Your task to perform on an android device: Add "rayovac triple a" to the cart on target, then select checkout. Image 0: 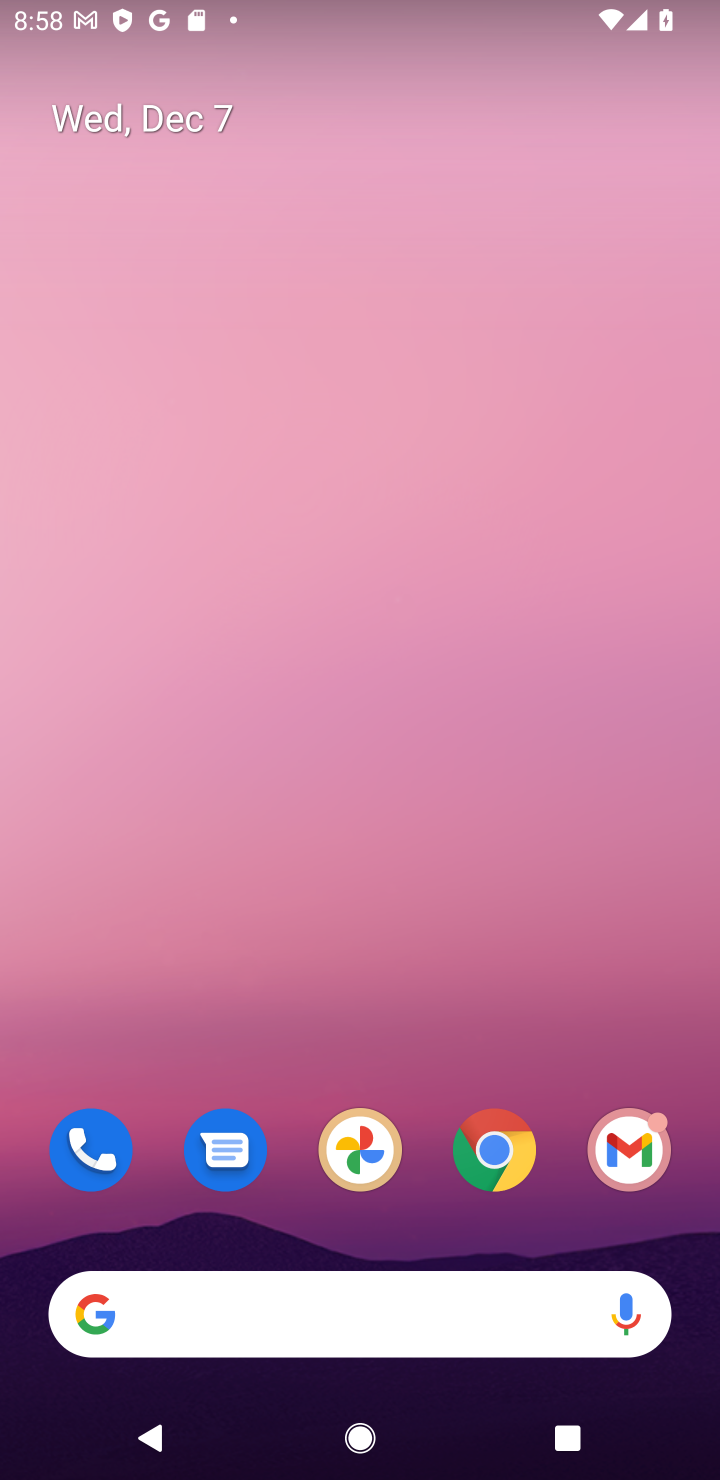
Step 0: click (492, 1152)
Your task to perform on an android device: Add "rayovac triple a" to the cart on target, then select checkout. Image 1: 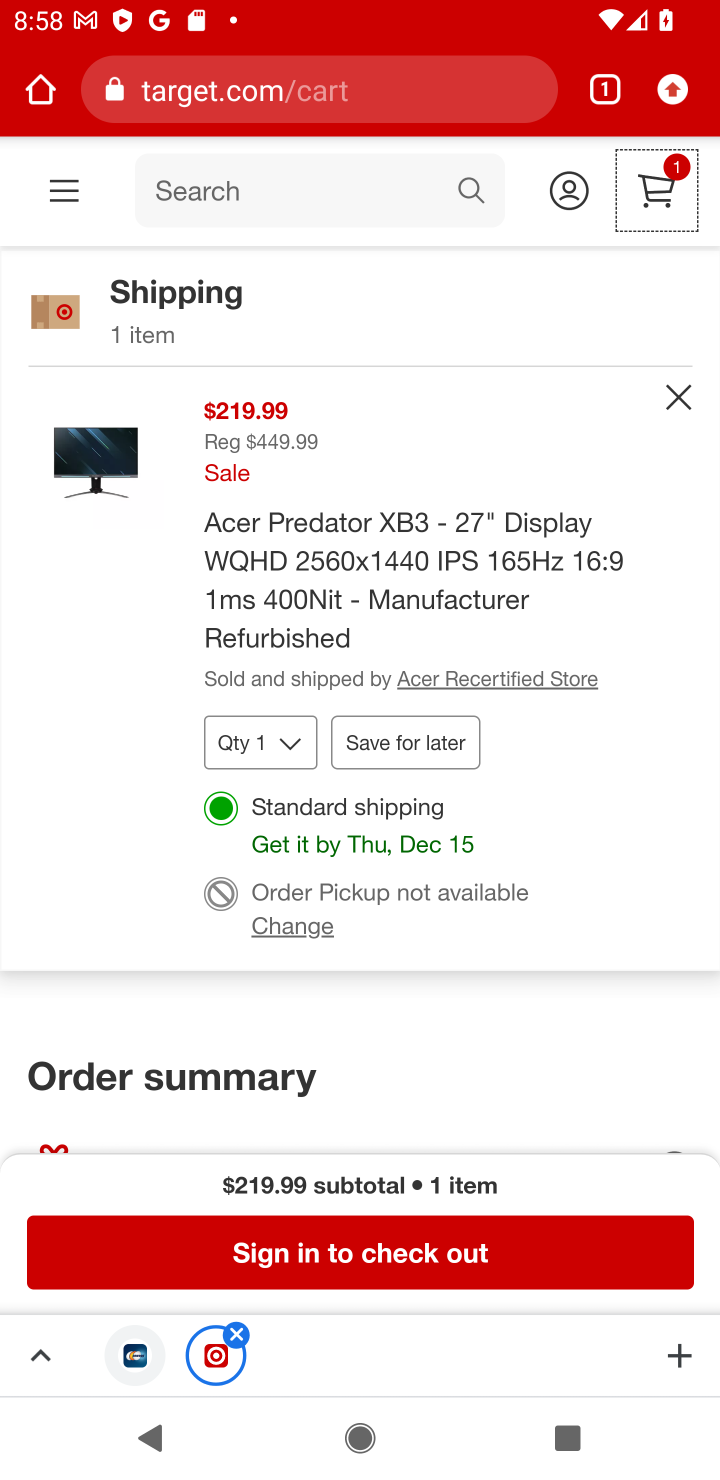
Step 1: click (236, 106)
Your task to perform on an android device: Add "rayovac triple a" to the cart on target, then select checkout. Image 2: 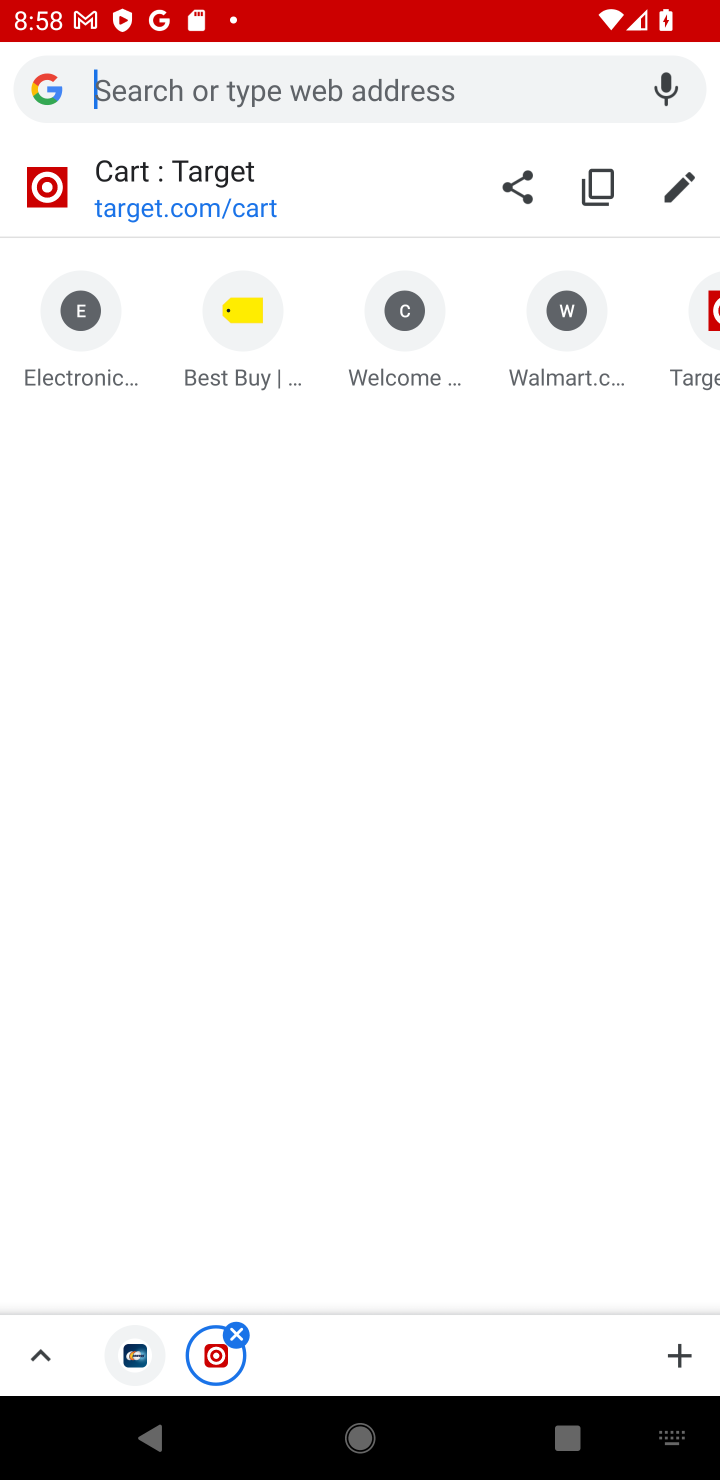
Step 2: type "target"
Your task to perform on an android device: Add "rayovac triple a" to the cart on target, then select checkout. Image 3: 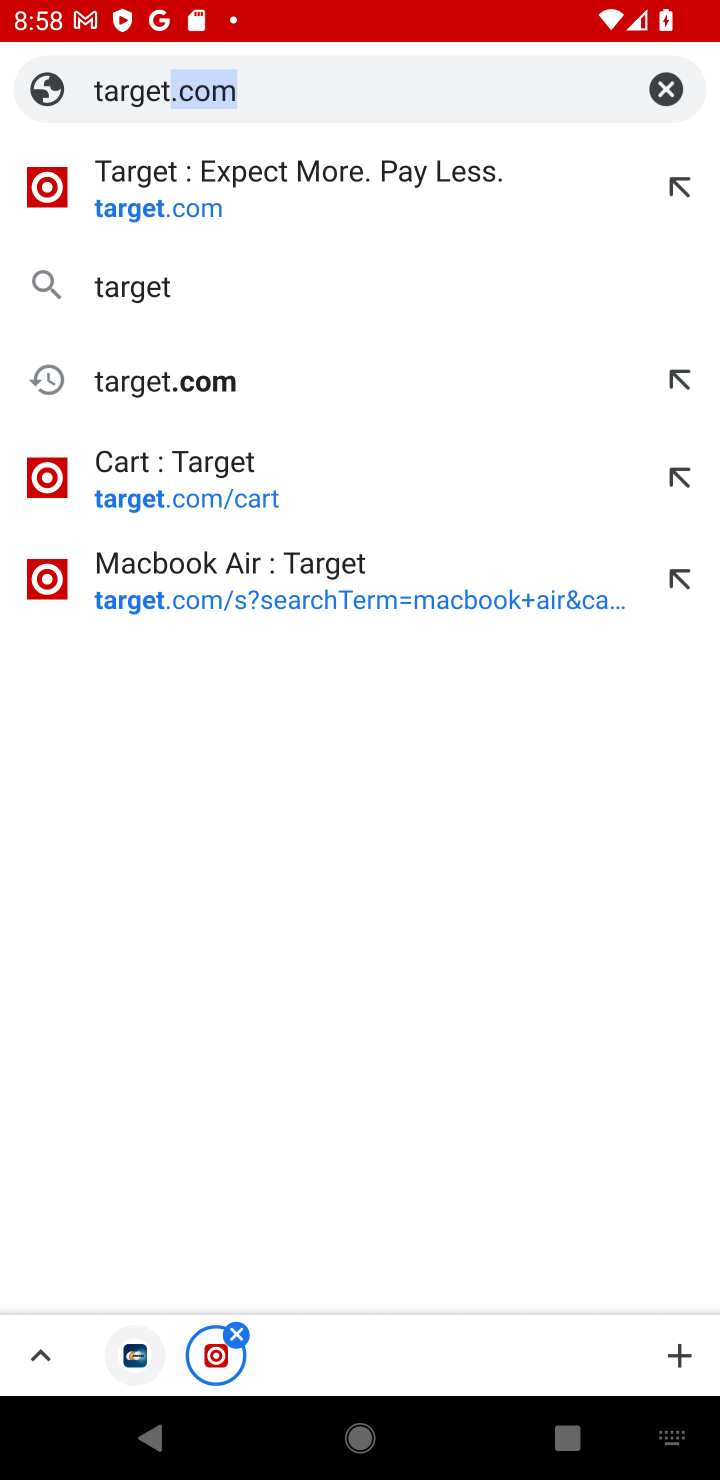
Step 3: click (279, 218)
Your task to perform on an android device: Add "rayovac triple a" to the cart on target, then select checkout. Image 4: 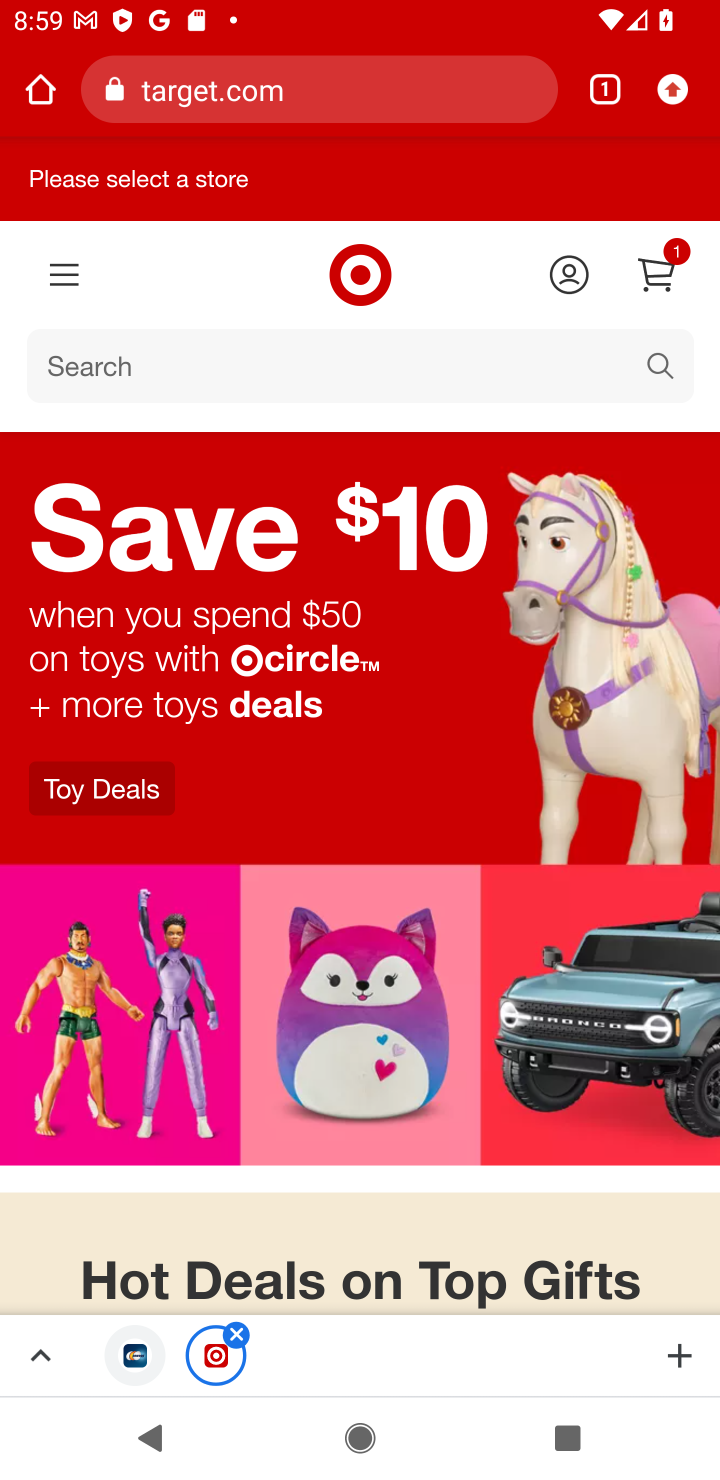
Step 4: click (301, 364)
Your task to perform on an android device: Add "rayovac triple a" to the cart on target, then select checkout. Image 5: 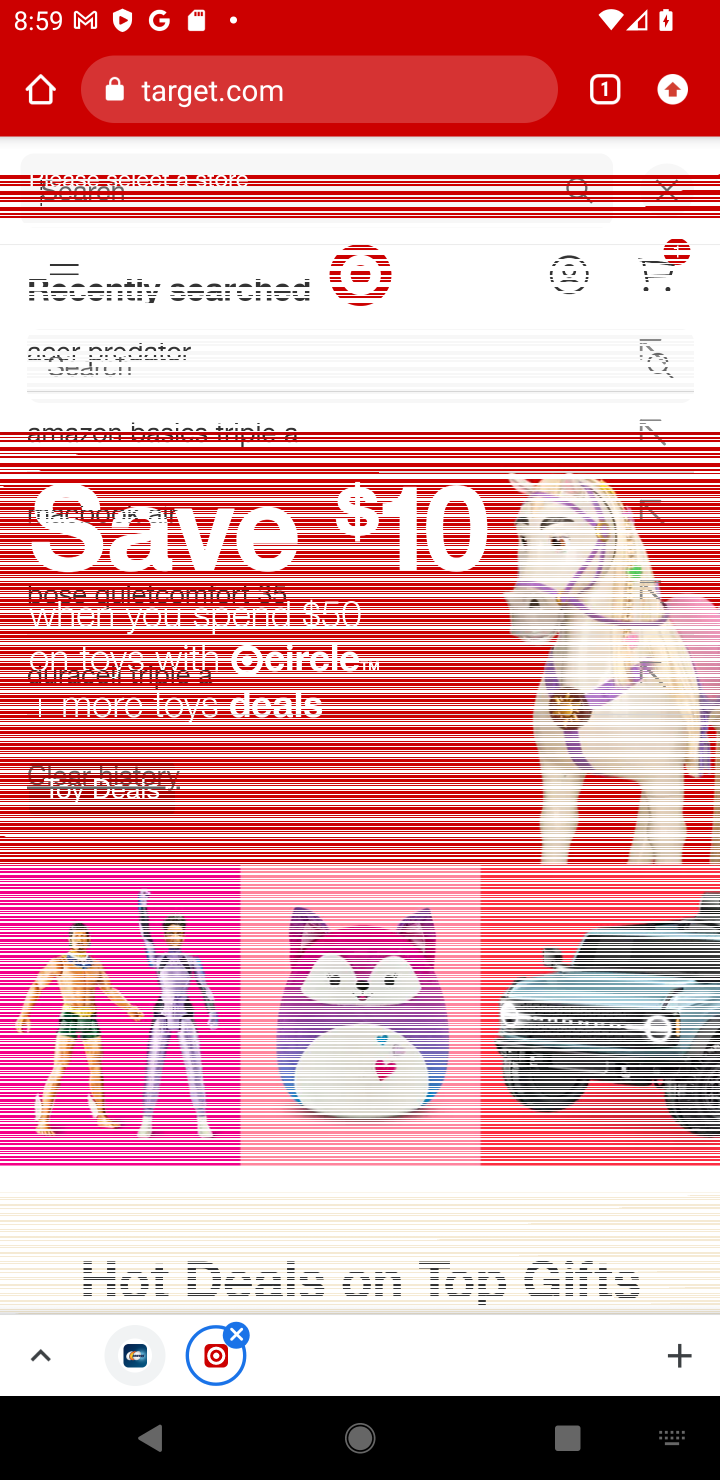
Step 5: press enter
Your task to perform on an android device: Add "rayovac triple a" to the cart on target, then select checkout. Image 6: 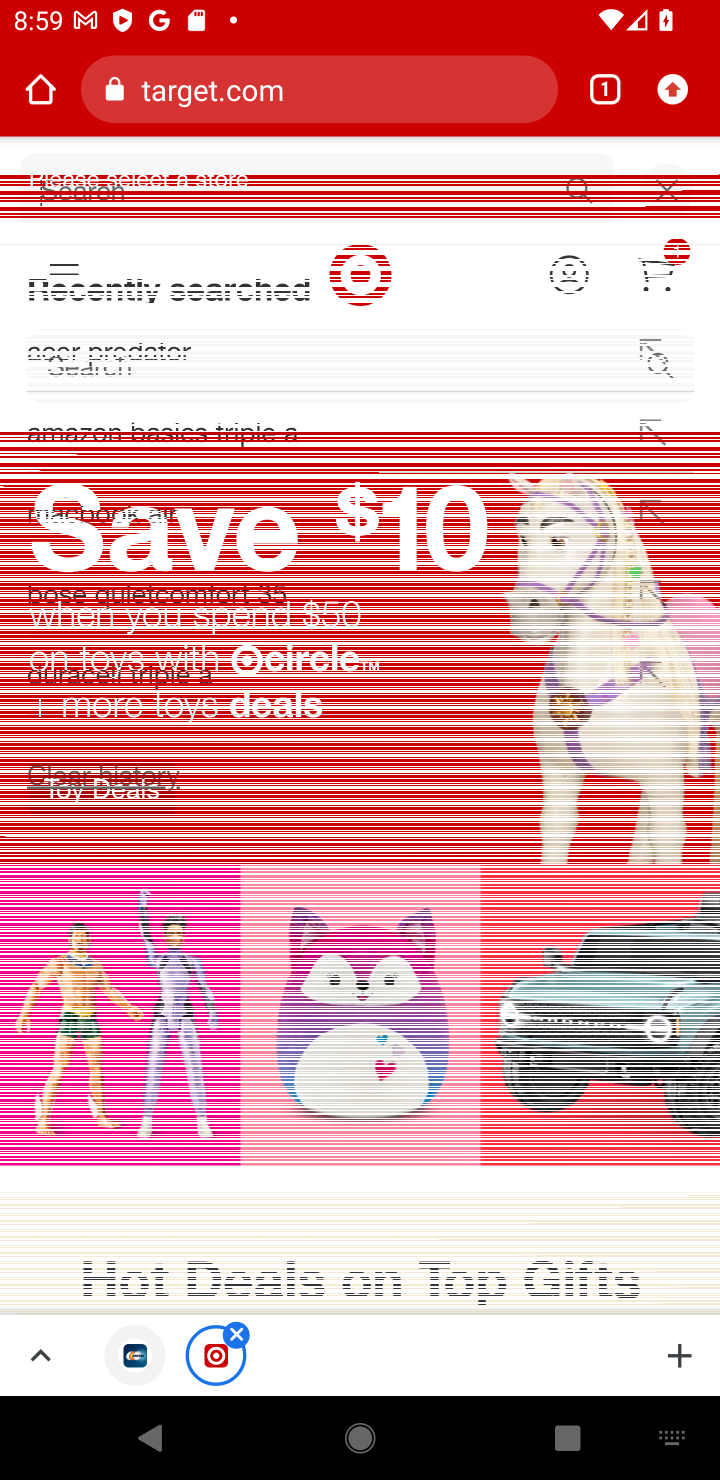
Step 6: type "rayovac triple a"
Your task to perform on an android device: Add "rayovac triple a" to the cart on target, then select checkout. Image 7: 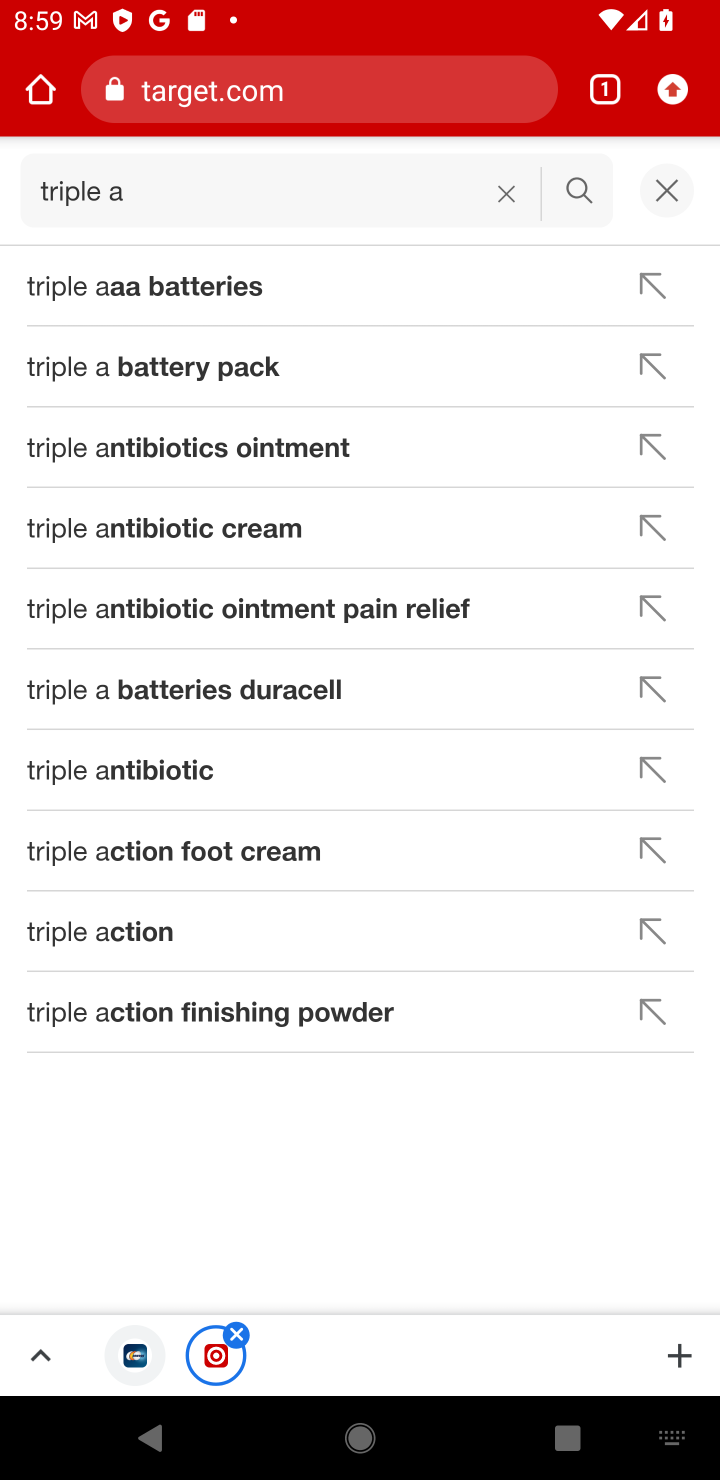
Step 7: press enter
Your task to perform on an android device: Add "rayovac triple a" to the cart on target, then select checkout. Image 8: 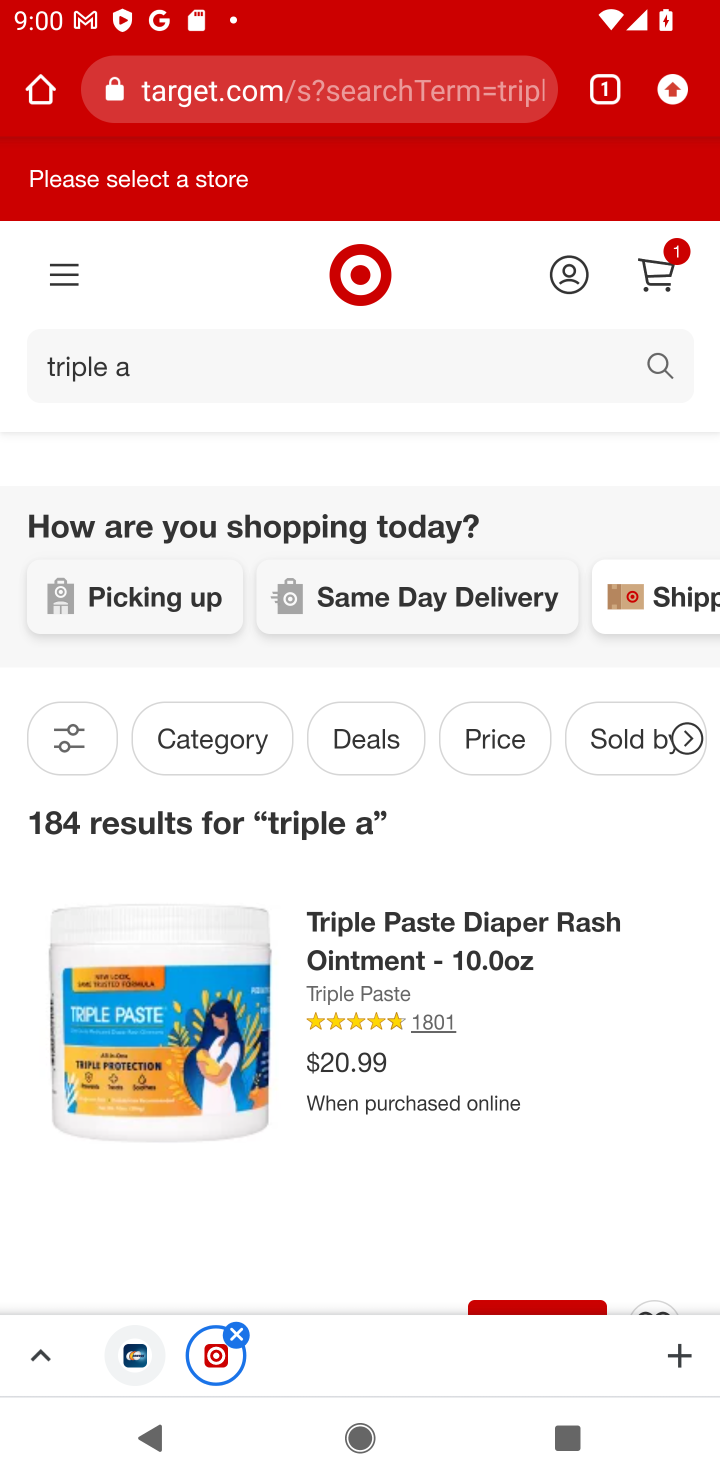
Step 8: click (207, 363)
Your task to perform on an android device: Add "rayovac triple a" to the cart on target, then select checkout. Image 9: 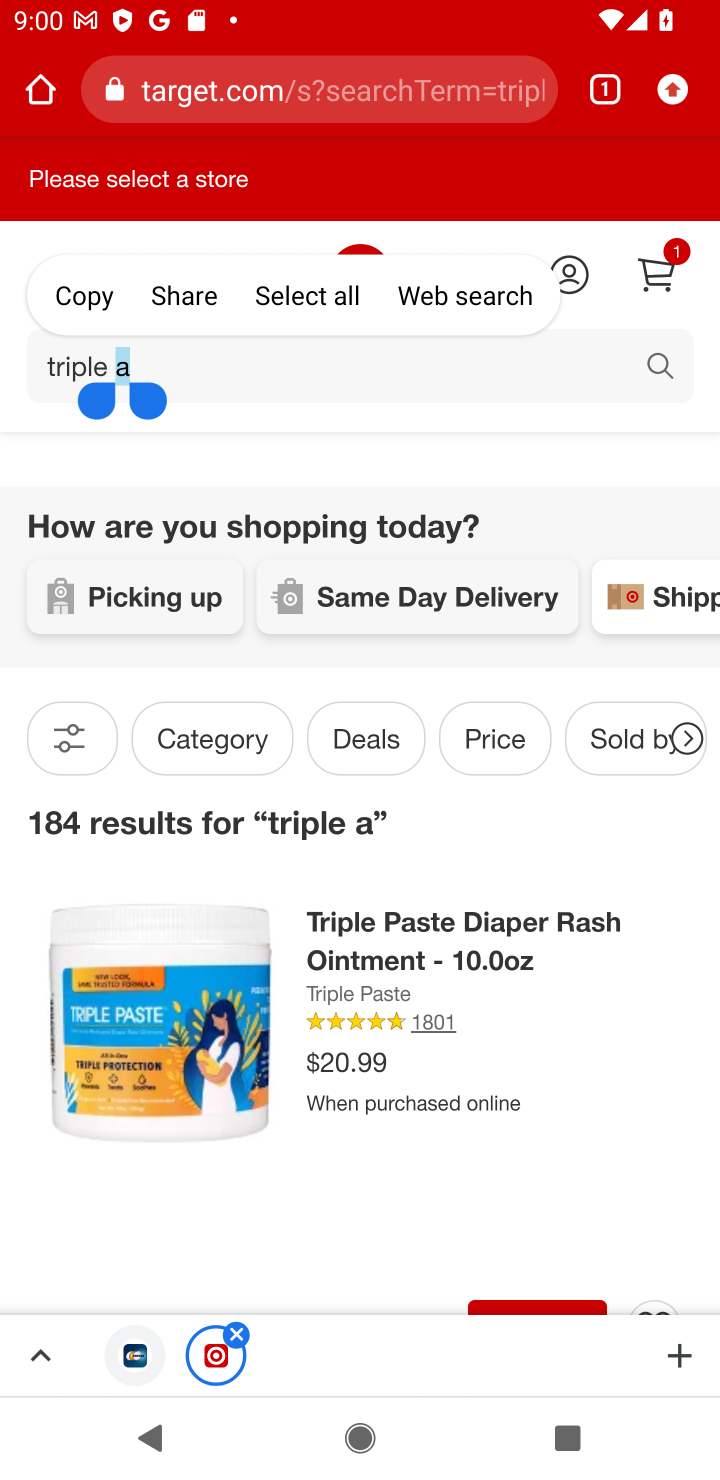
Step 9: click (207, 363)
Your task to perform on an android device: Add "rayovac triple a" to the cart on target, then select checkout. Image 10: 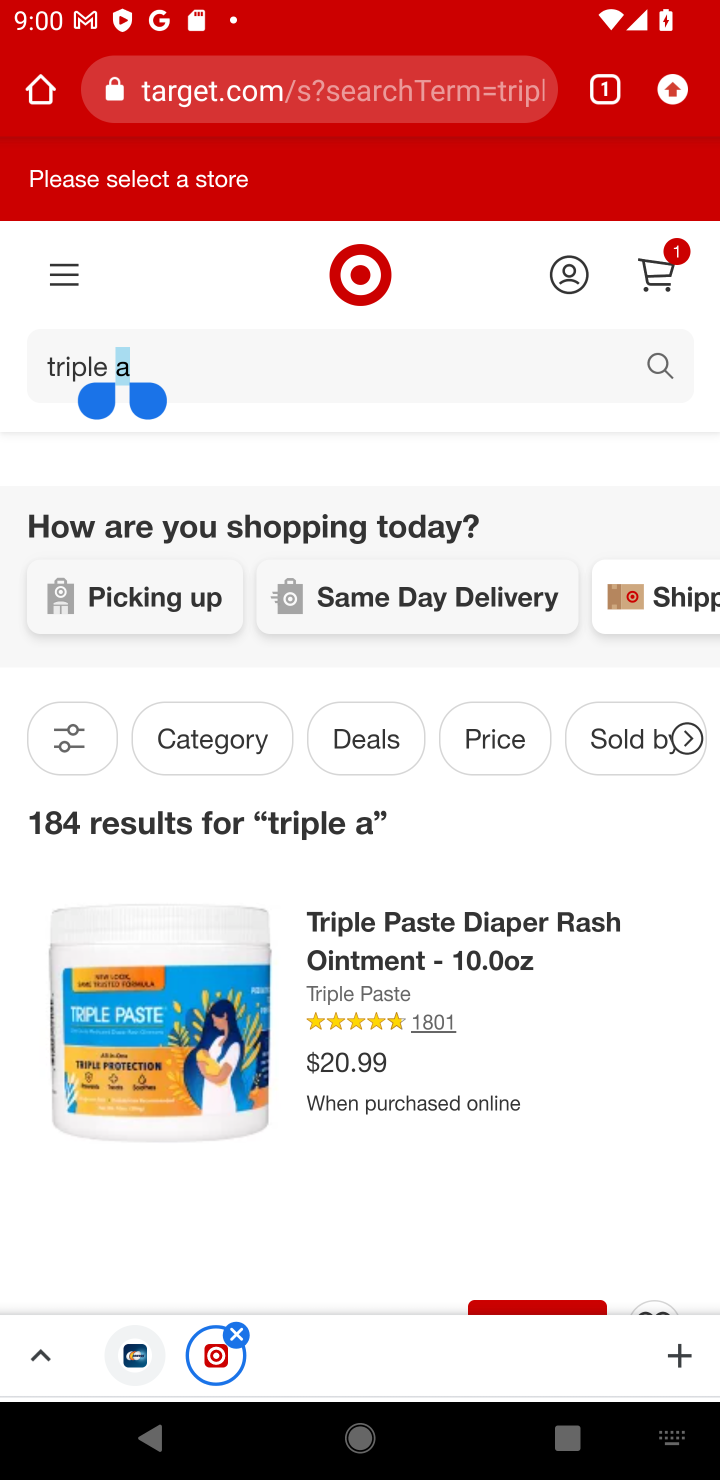
Step 10: click (340, 300)
Your task to perform on an android device: Add "rayovac triple a" to the cart on target, then select checkout. Image 11: 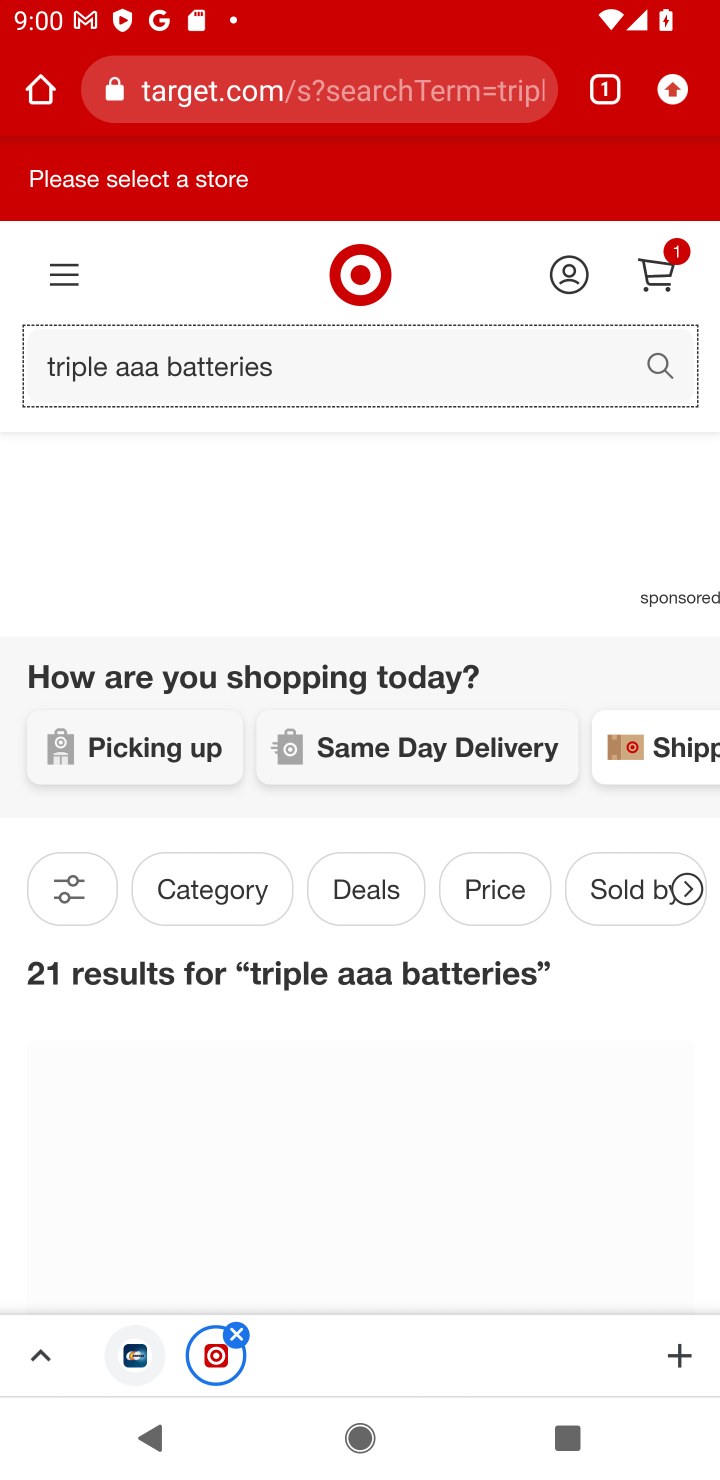
Step 11: click (373, 368)
Your task to perform on an android device: Add "rayovac triple a" to the cart on target, then select checkout. Image 12: 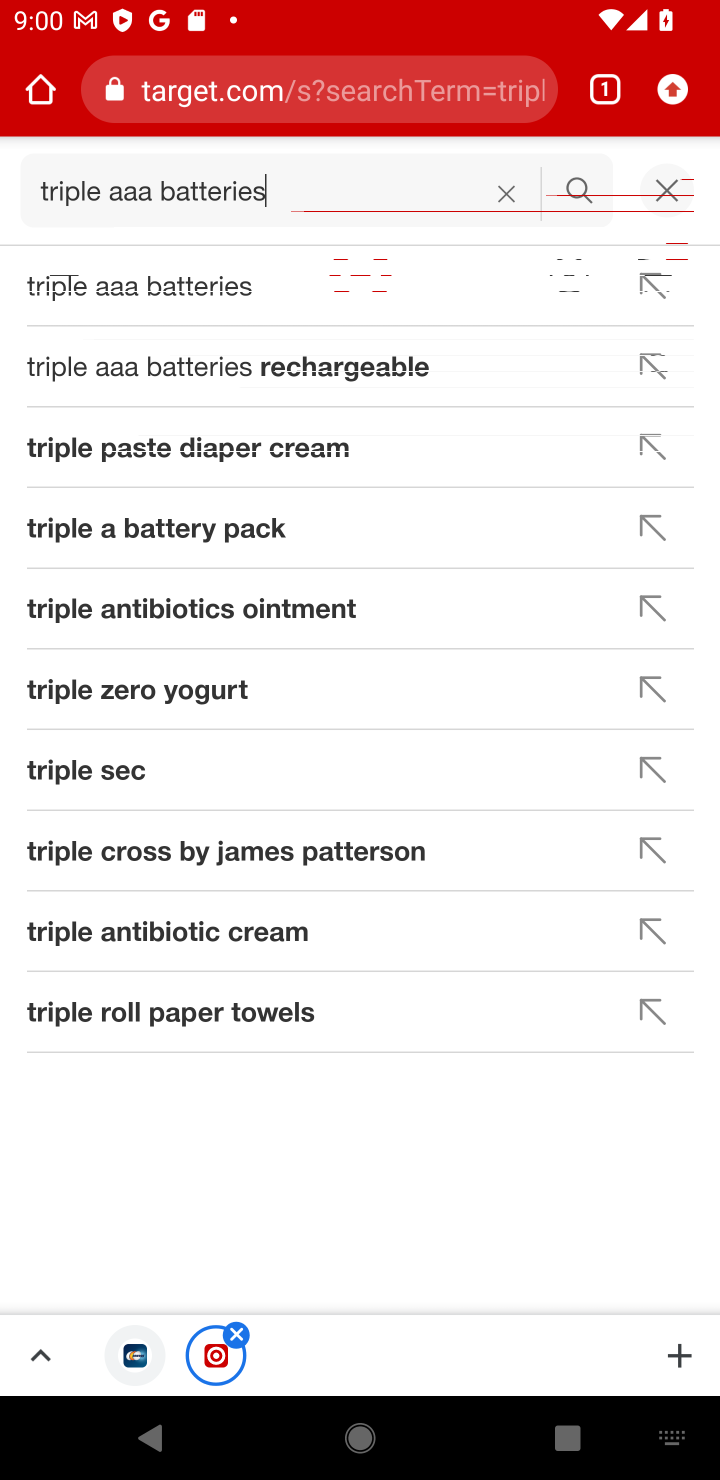
Step 12: click (501, 205)
Your task to perform on an android device: Add "rayovac triple a" to the cart on target, then select checkout. Image 13: 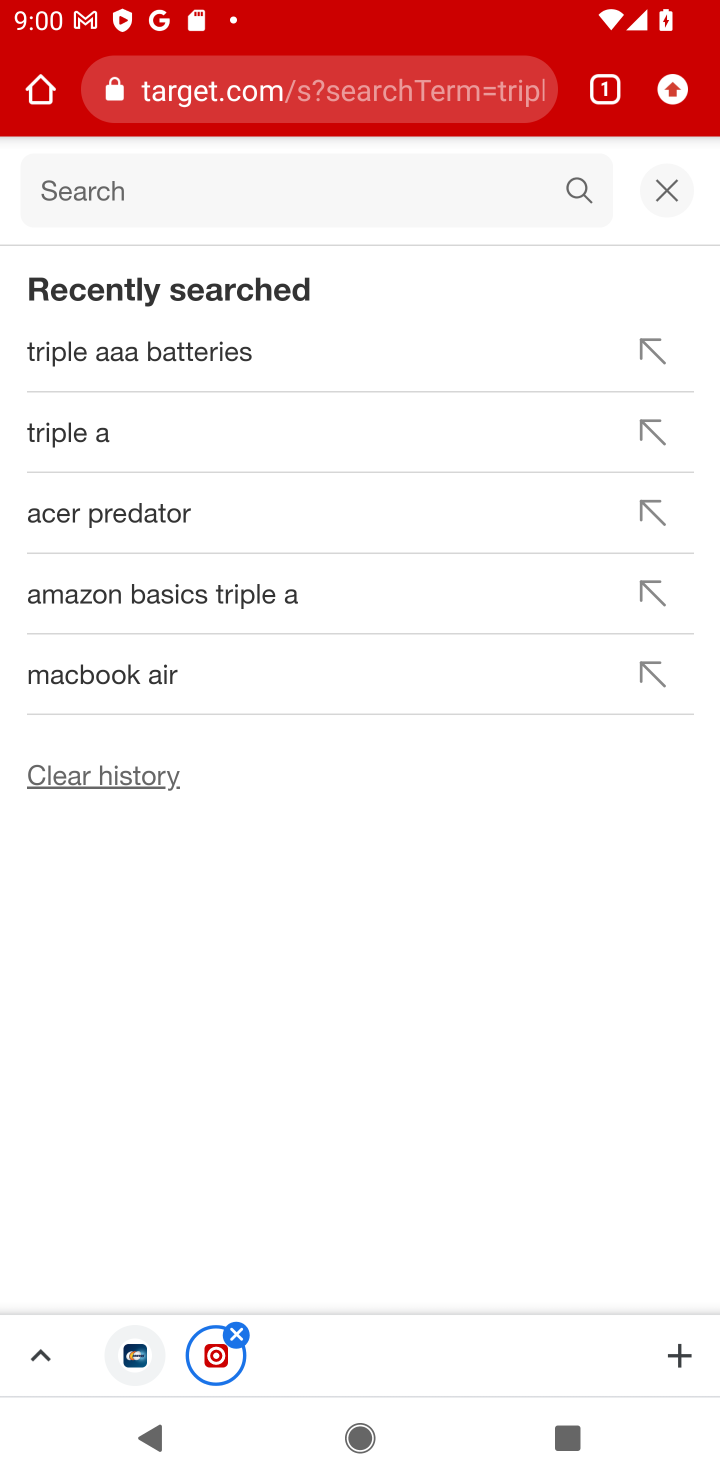
Step 13: type "rayovac triple a"
Your task to perform on an android device: Add "rayovac triple a" to the cart on target, then select checkout. Image 14: 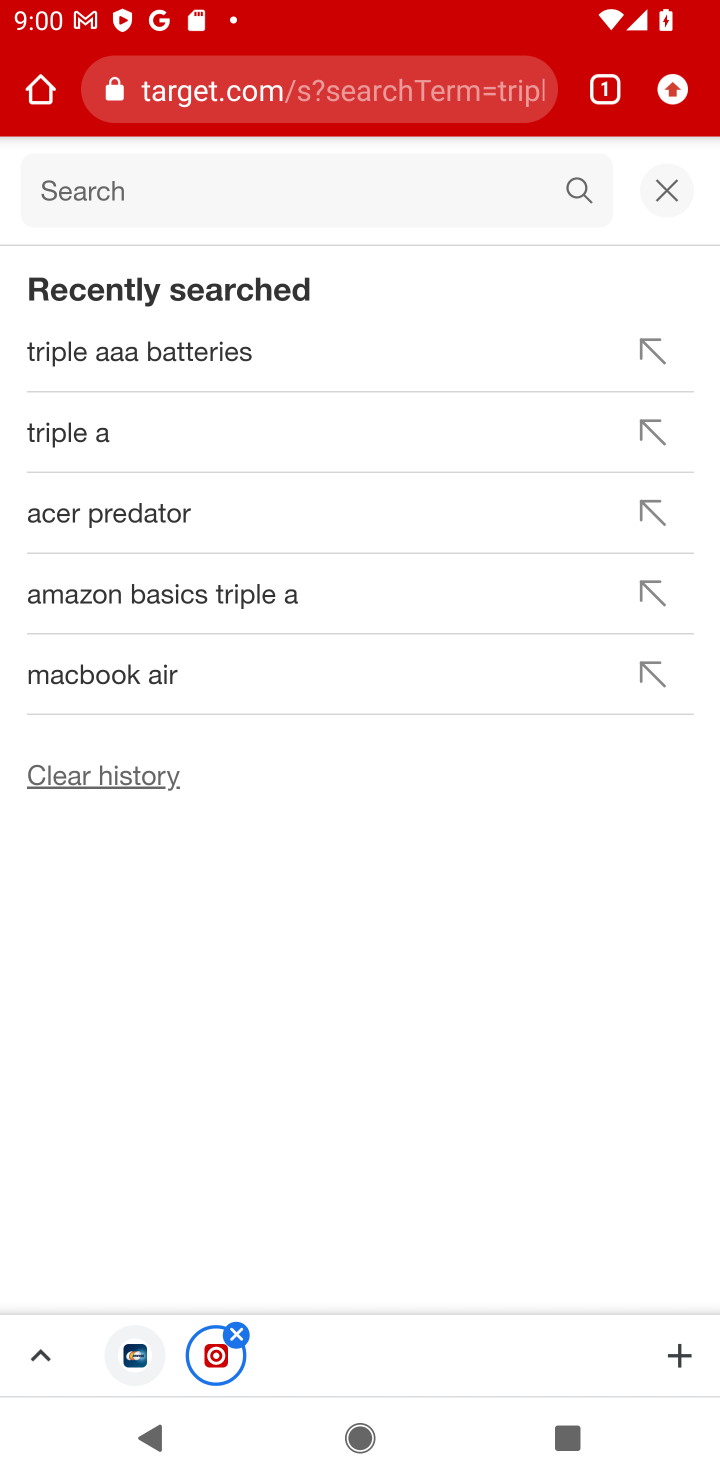
Step 14: press enter
Your task to perform on an android device: Add "rayovac triple a" to the cart on target, then select checkout. Image 15: 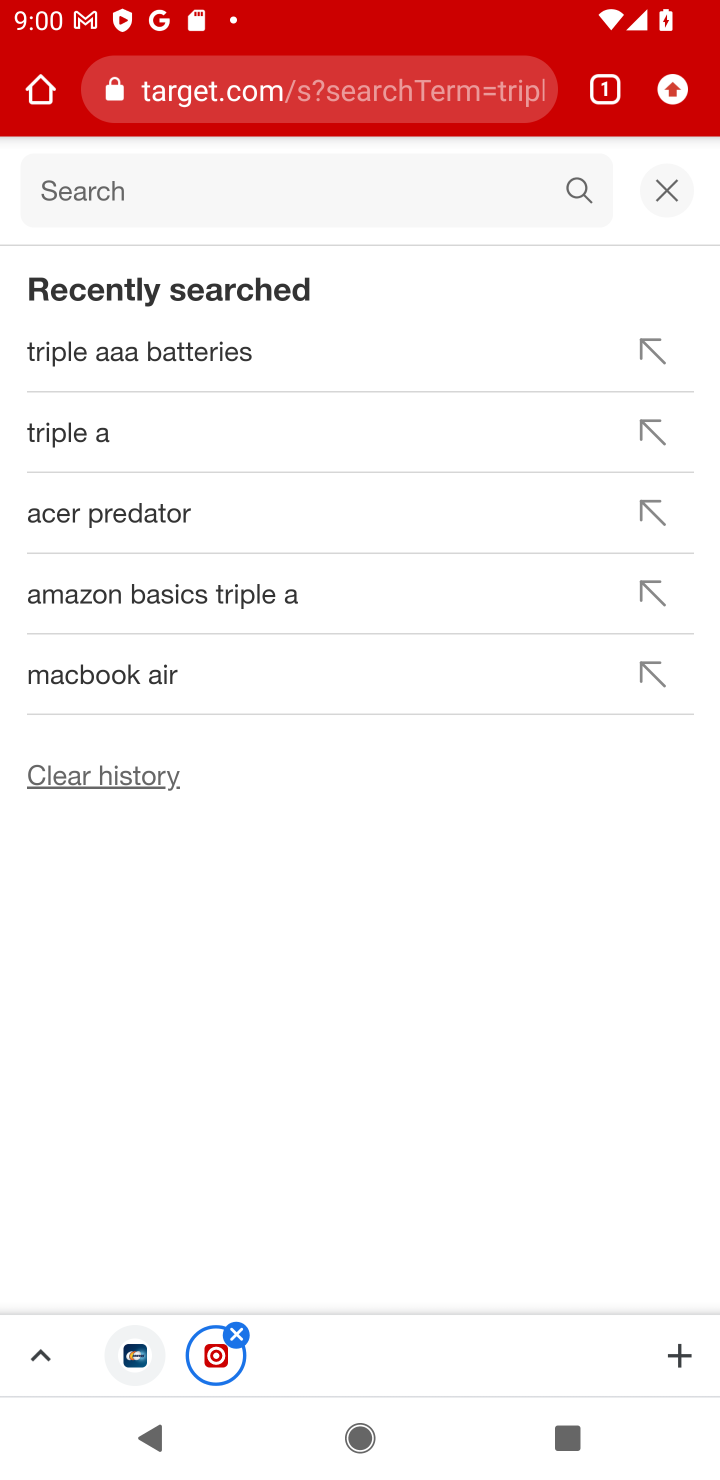
Step 15: click (284, 219)
Your task to perform on an android device: Add "rayovac triple a" to the cart on target, then select checkout. Image 16: 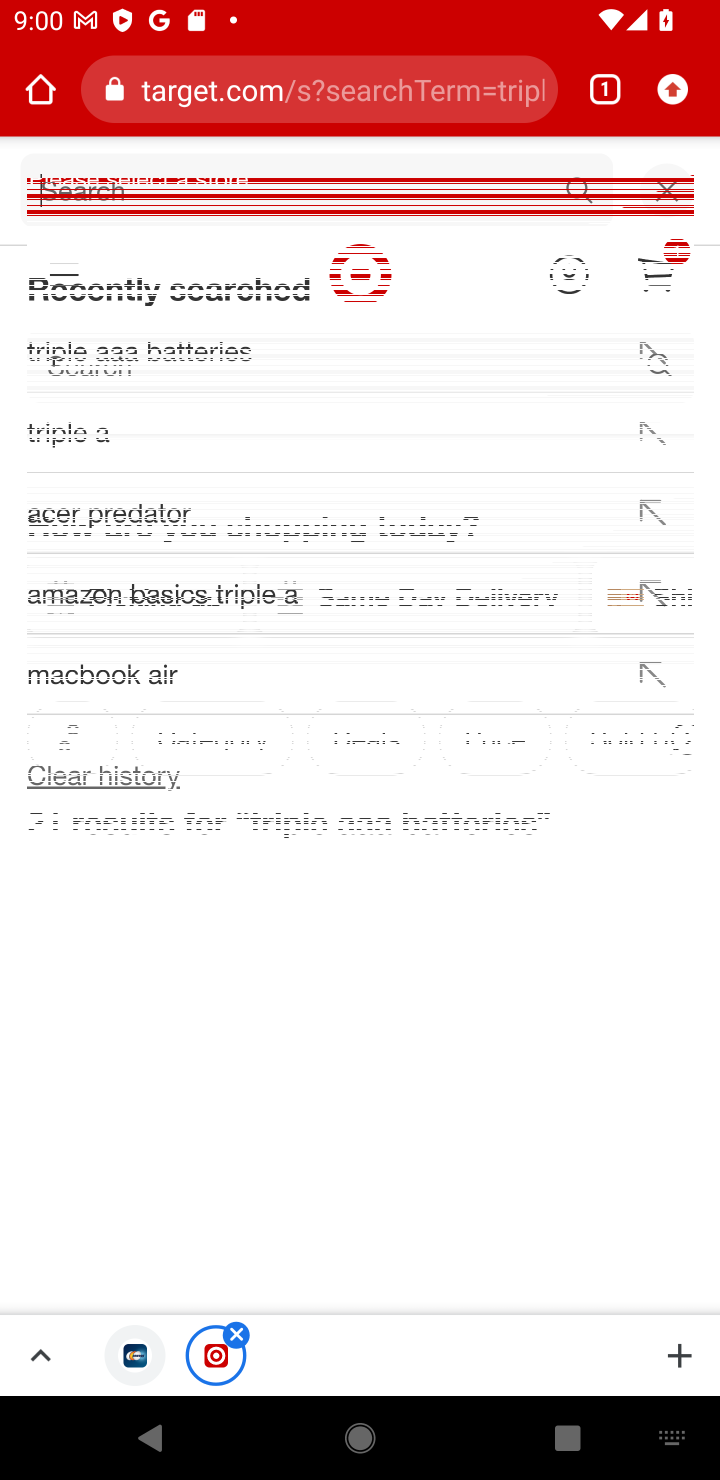
Step 16: type "rayovac triple a"
Your task to perform on an android device: Add "rayovac triple a" to the cart on target, then select checkout. Image 17: 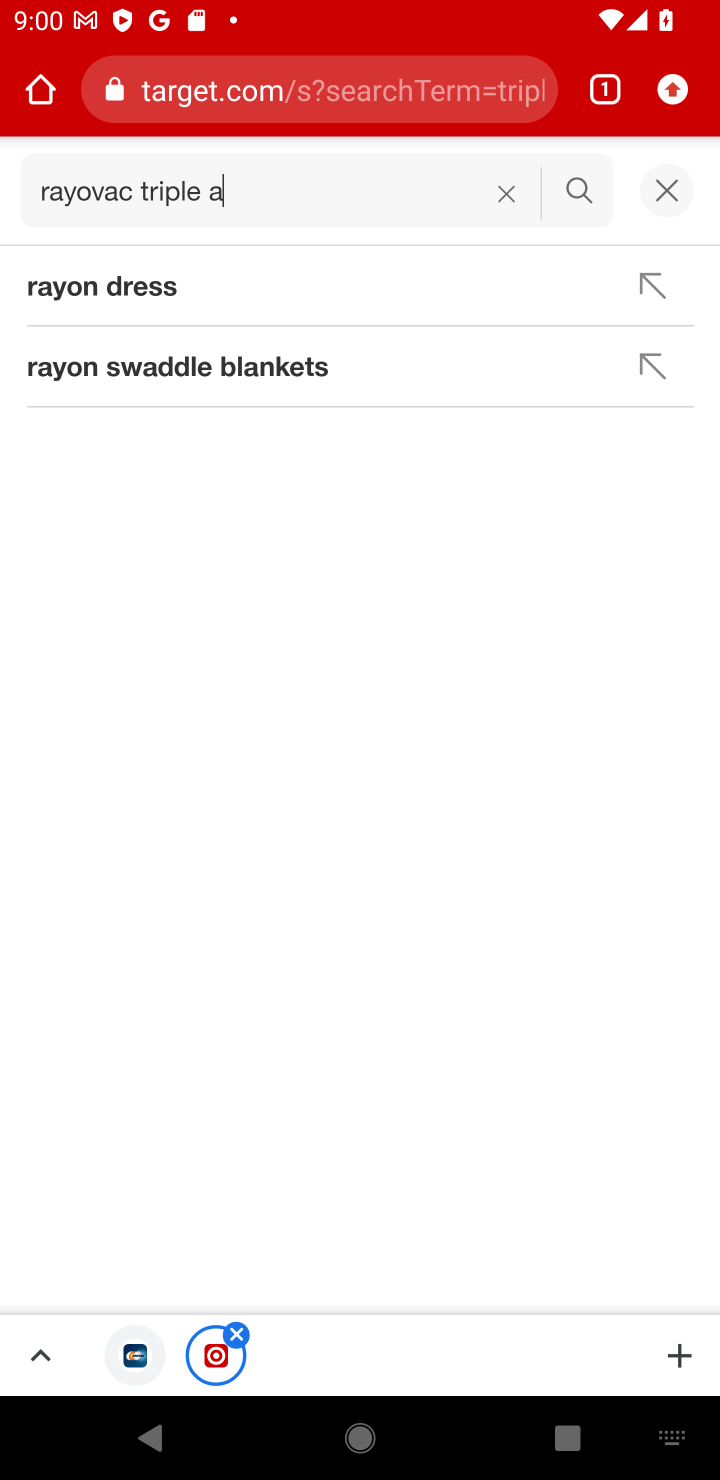
Step 17: press enter
Your task to perform on an android device: Add "rayovac triple a" to the cart on target, then select checkout. Image 18: 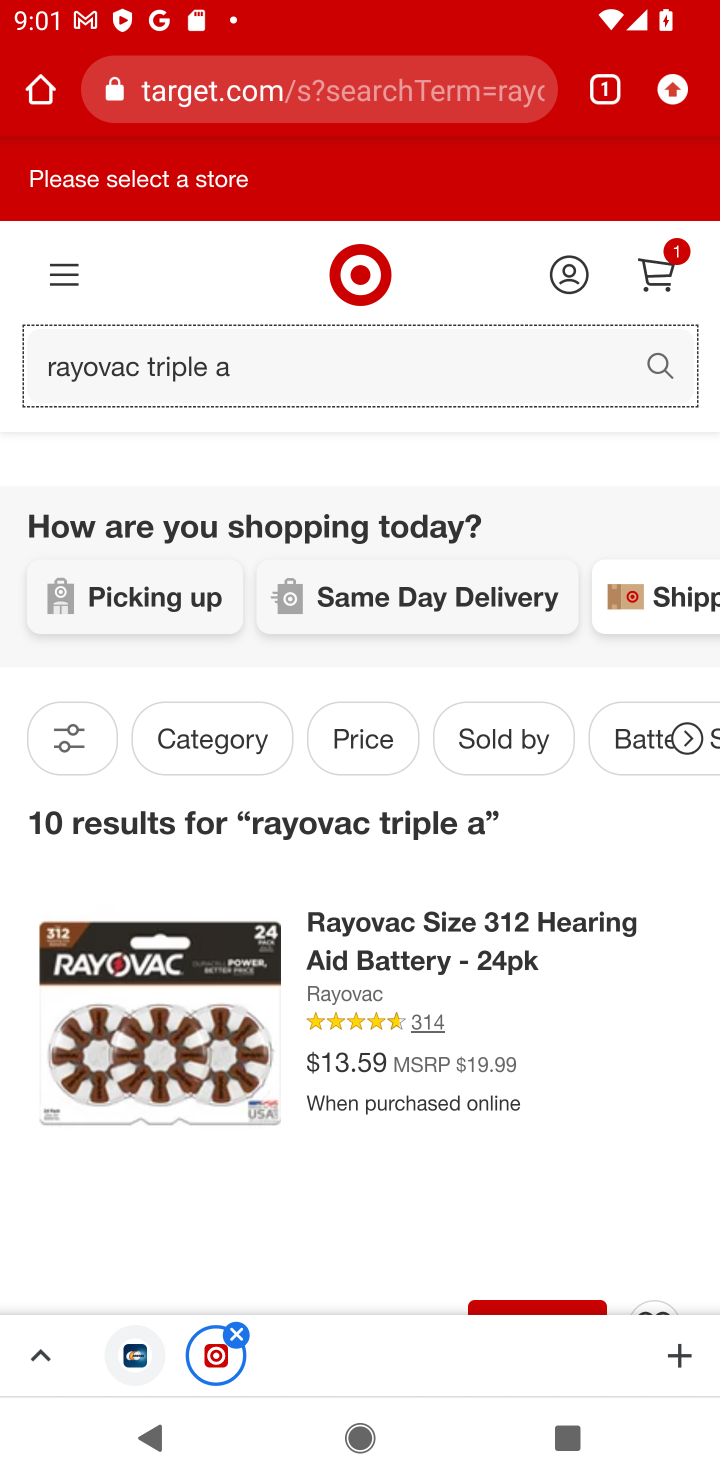
Step 18: task complete